Your task to perform on an android device: Clear all items from cart on bestbuy.com. Image 0: 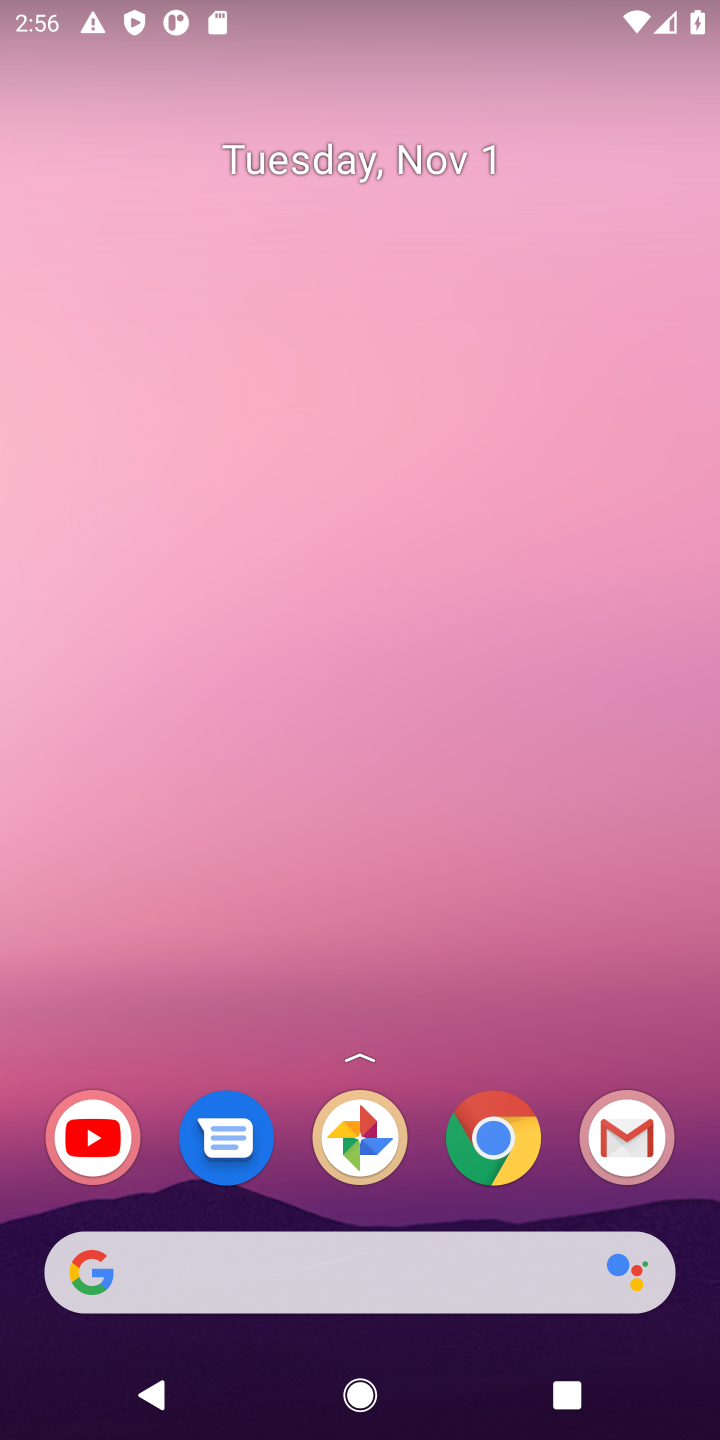
Step 0: click (495, 1143)
Your task to perform on an android device: Clear all items from cart on bestbuy.com. Image 1: 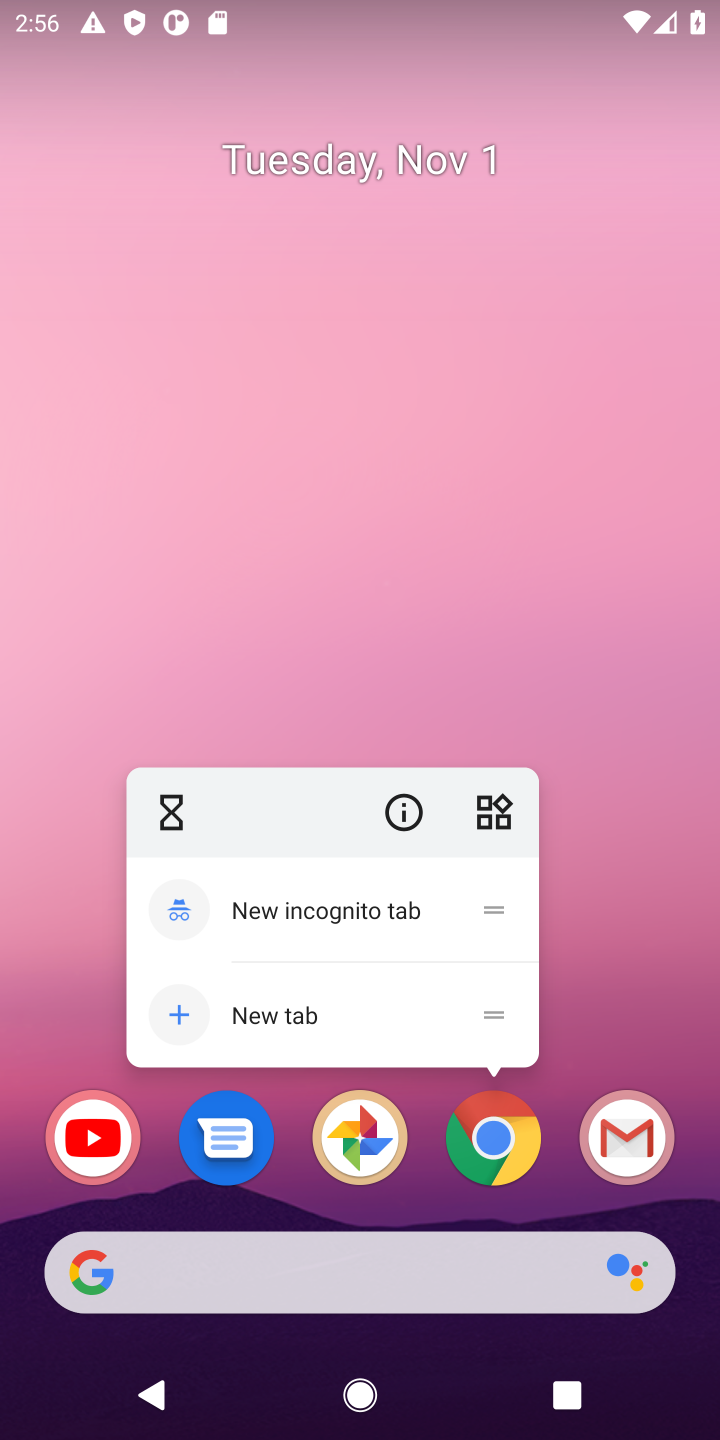
Step 1: click (495, 1143)
Your task to perform on an android device: Clear all items from cart on bestbuy.com. Image 2: 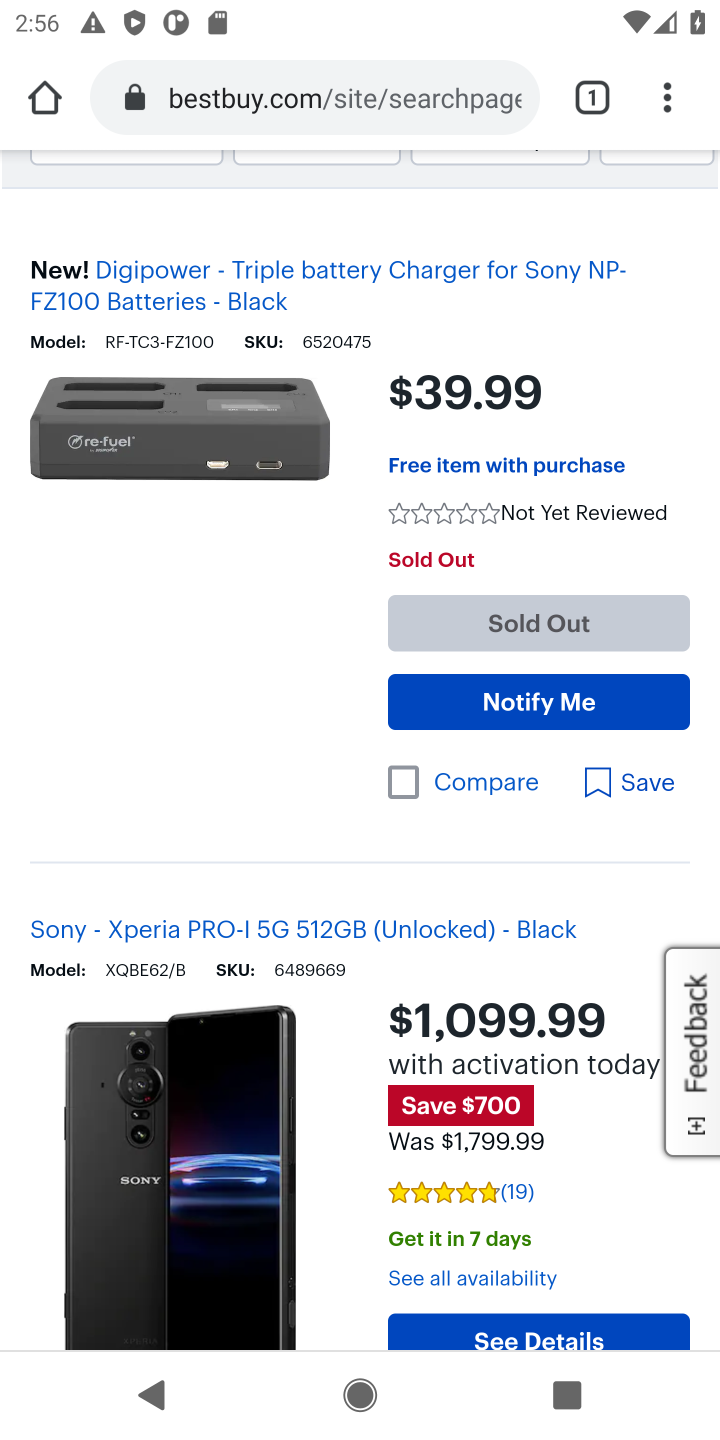
Step 2: click (351, 83)
Your task to perform on an android device: Clear all items from cart on bestbuy.com. Image 3: 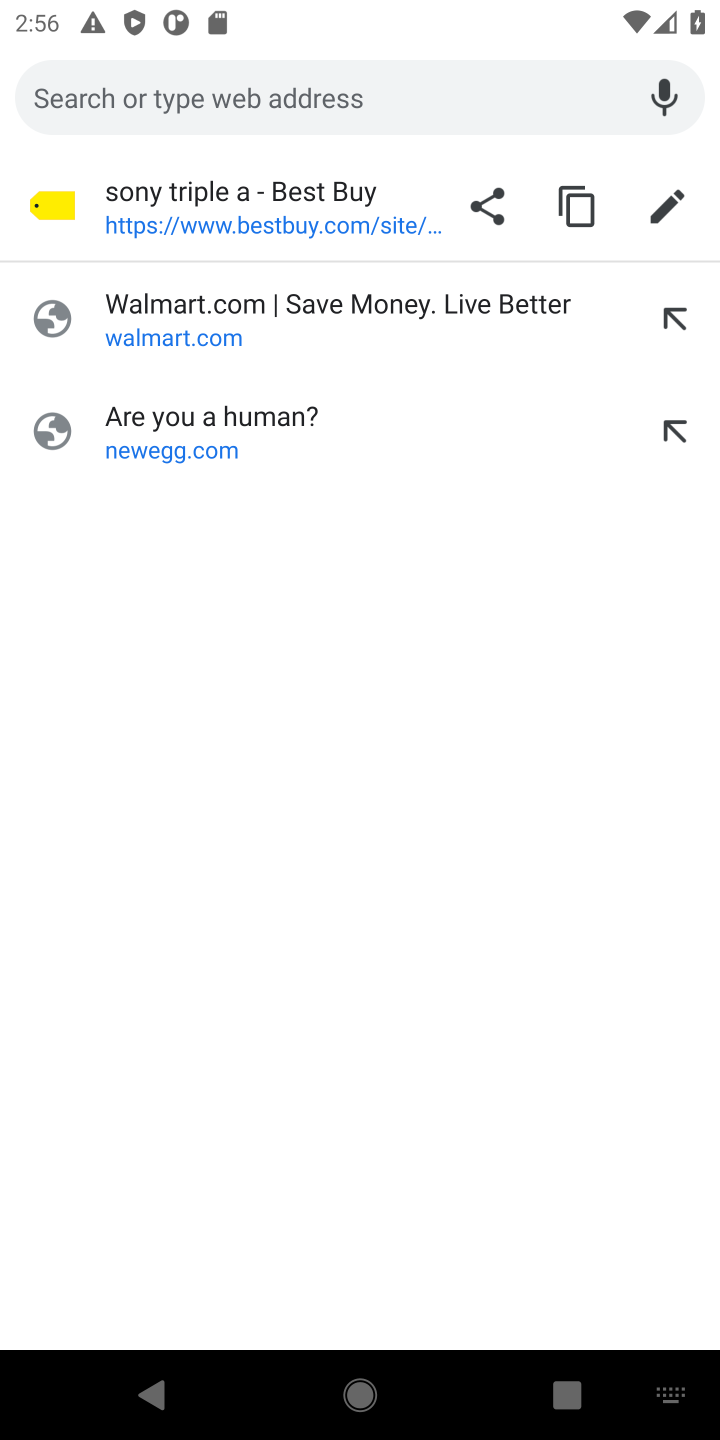
Step 3: type "bestbuy.com"
Your task to perform on an android device: Clear all items from cart on bestbuy.com. Image 4: 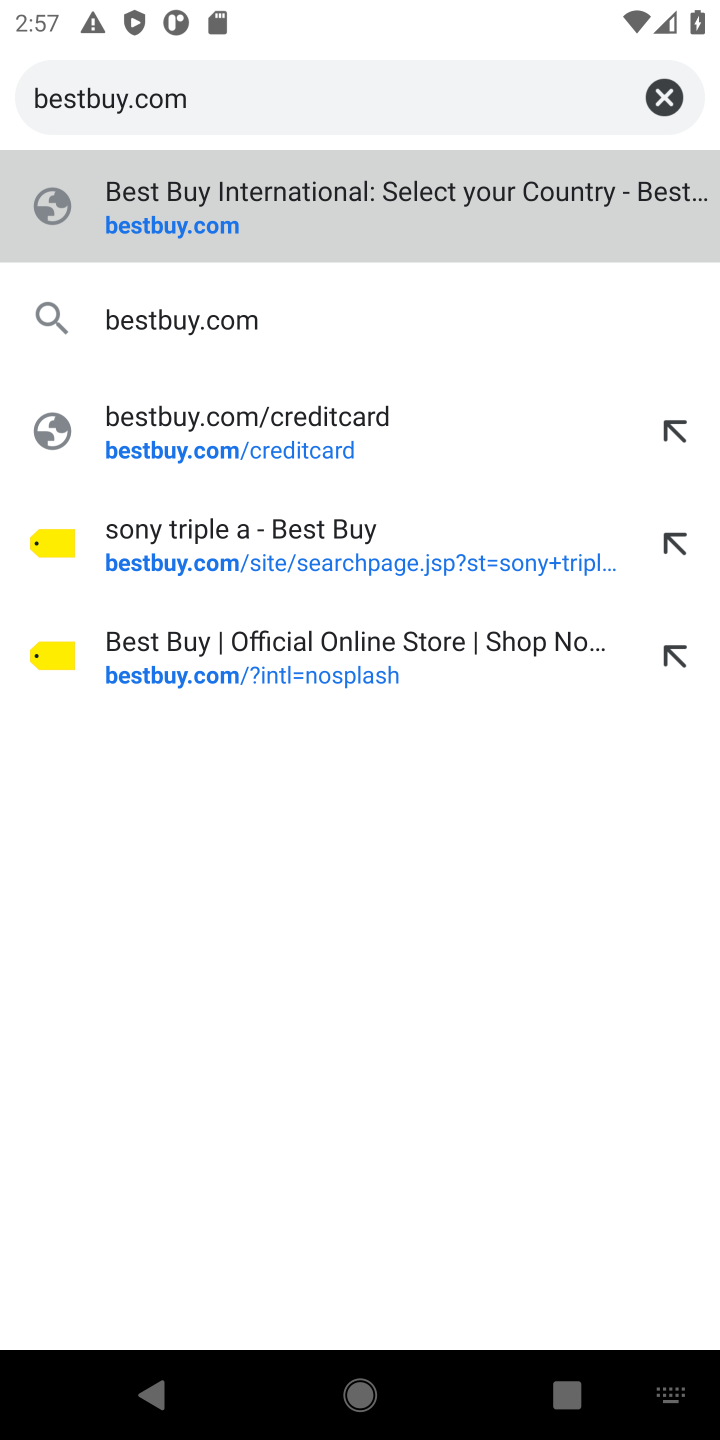
Step 4: click (303, 203)
Your task to perform on an android device: Clear all items from cart on bestbuy.com. Image 5: 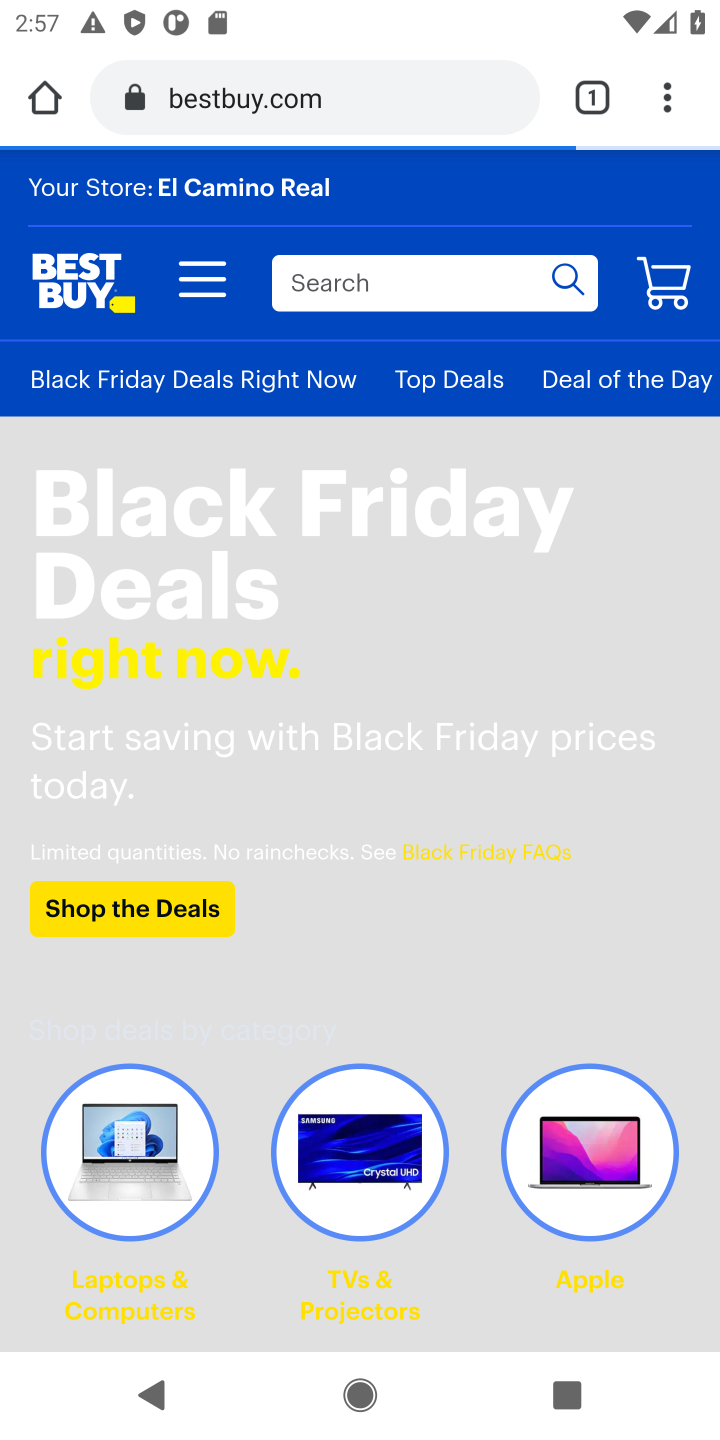
Step 5: click (354, 283)
Your task to perform on an android device: Clear all items from cart on bestbuy.com. Image 6: 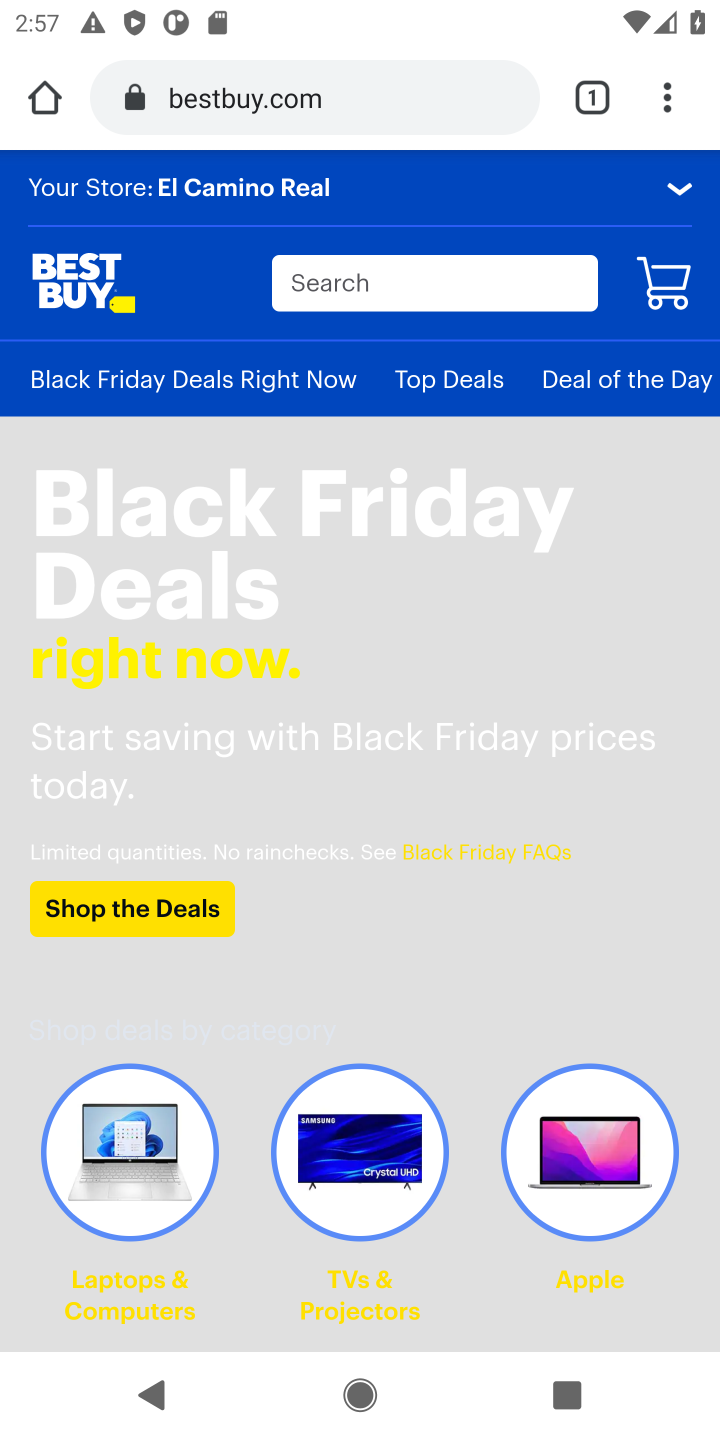
Step 6: click (649, 281)
Your task to perform on an android device: Clear all items from cart on bestbuy.com. Image 7: 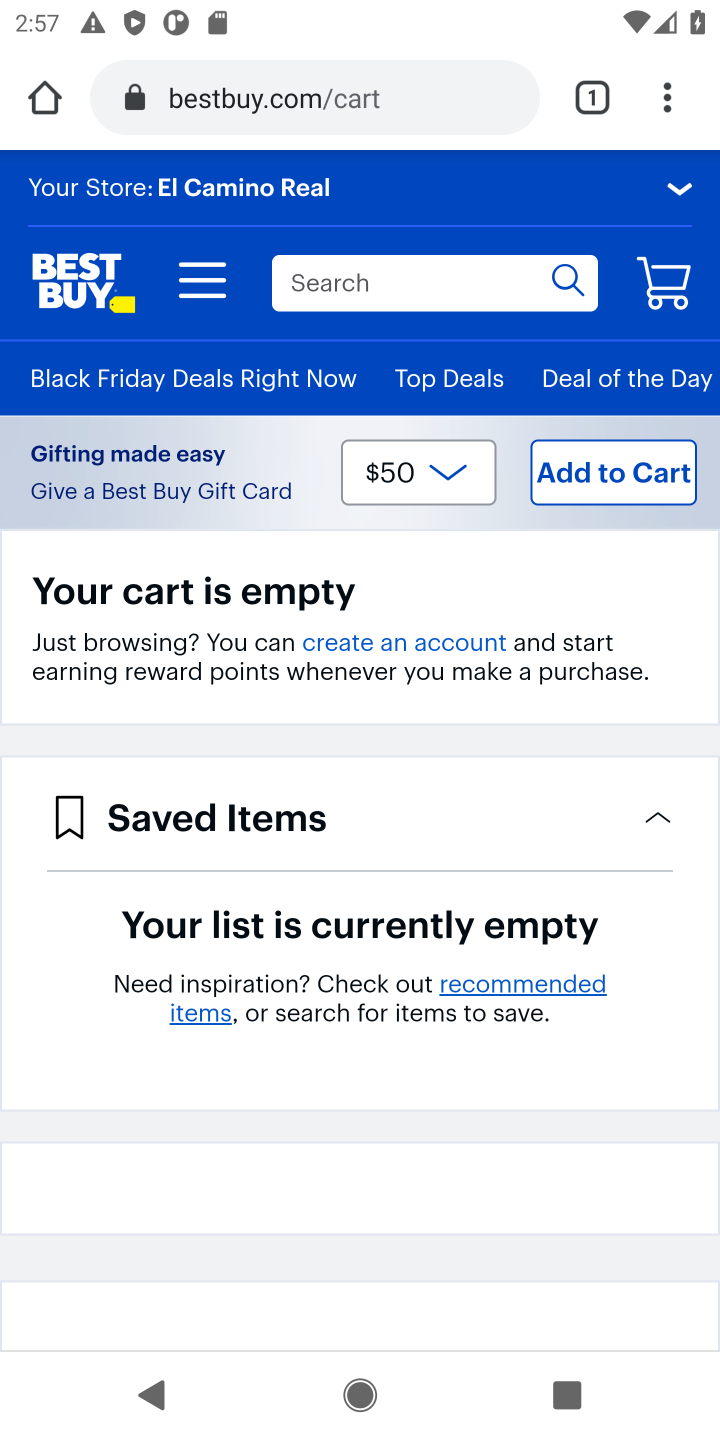
Step 7: task complete